Your task to perform on an android device: Open the calendar app, open the side menu, and click the "Day" option Image 0: 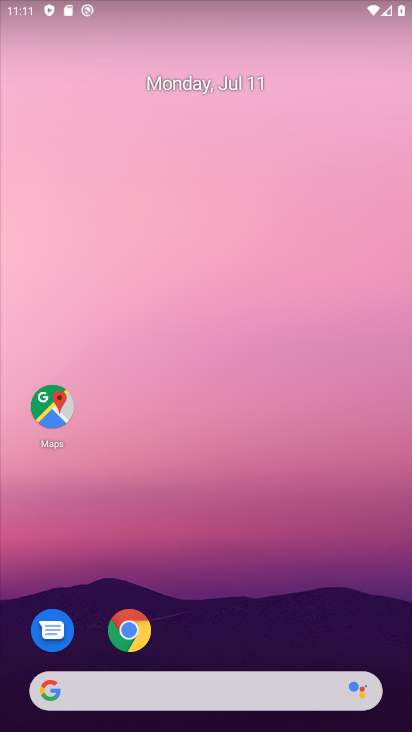
Step 0: drag from (202, 684) to (218, 89)
Your task to perform on an android device: Open the calendar app, open the side menu, and click the "Day" option Image 1: 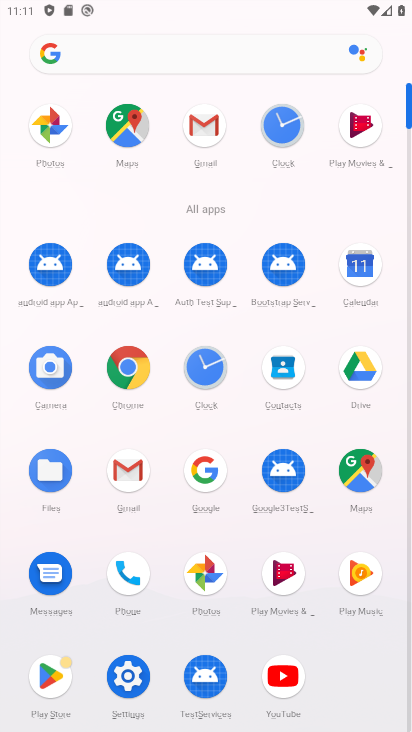
Step 1: click (361, 273)
Your task to perform on an android device: Open the calendar app, open the side menu, and click the "Day" option Image 2: 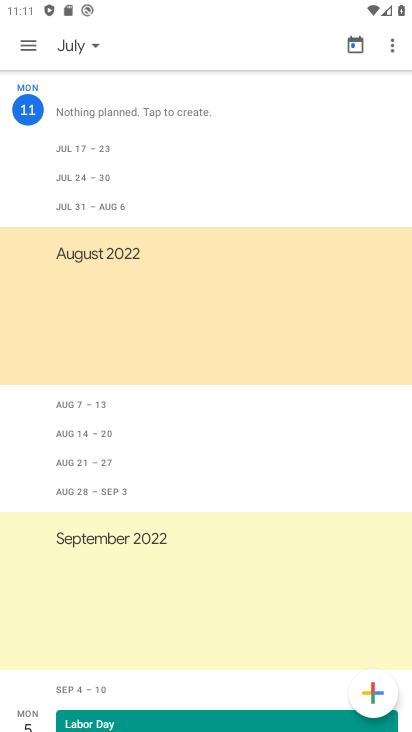
Step 2: click (130, 181)
Your task to perform on an android device: Open the calendar app, open the side menu, and click the "Day" option Image 3: 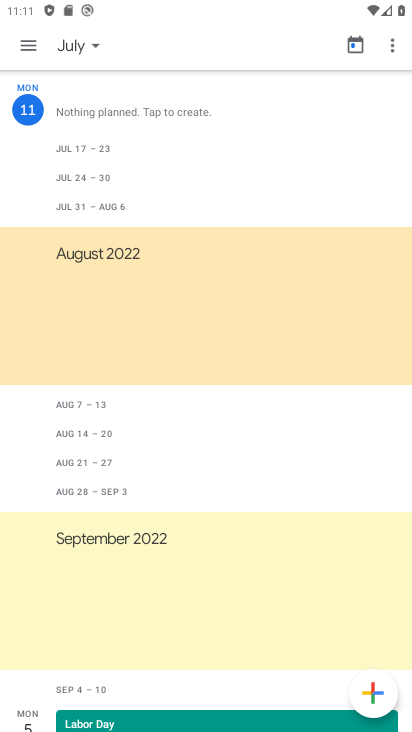
Step 3: click (31, 48)
Your task to perform on an android device: Open the calendar app, open the side menu, and click the "Day" option Image 4: 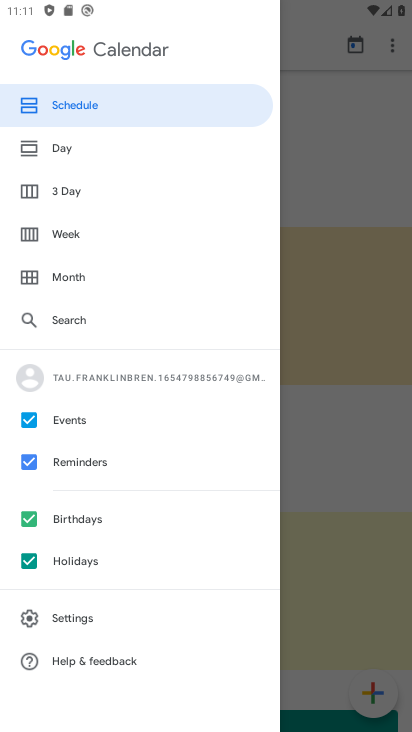
Step 4: click (53, 150)
Your task to perform on an android device: Open the calendar app, open the side menu, and click the "Day" option Image 5: 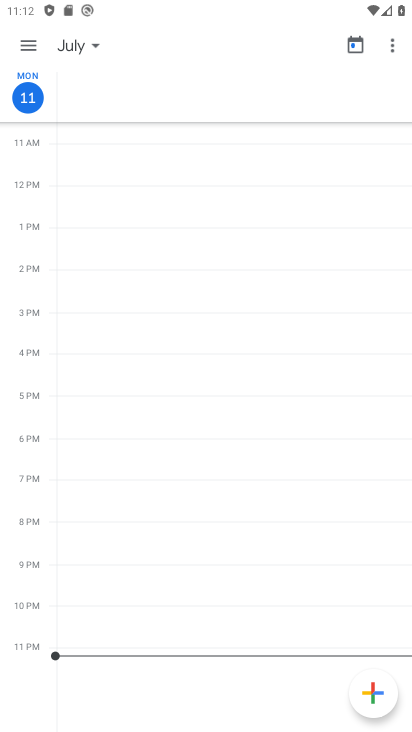
Step 5: task complete